Your task to perform on an android device: delete location history Image 0: 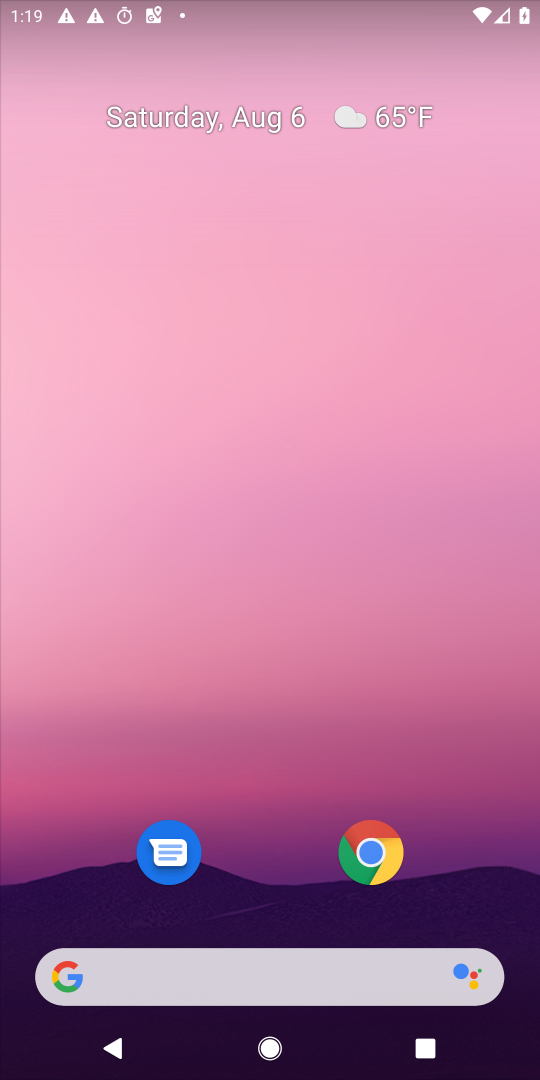
Step 0: drag from (343, 980) to (368, 442)
Your task to perform on an android device: delete location history Image 1: 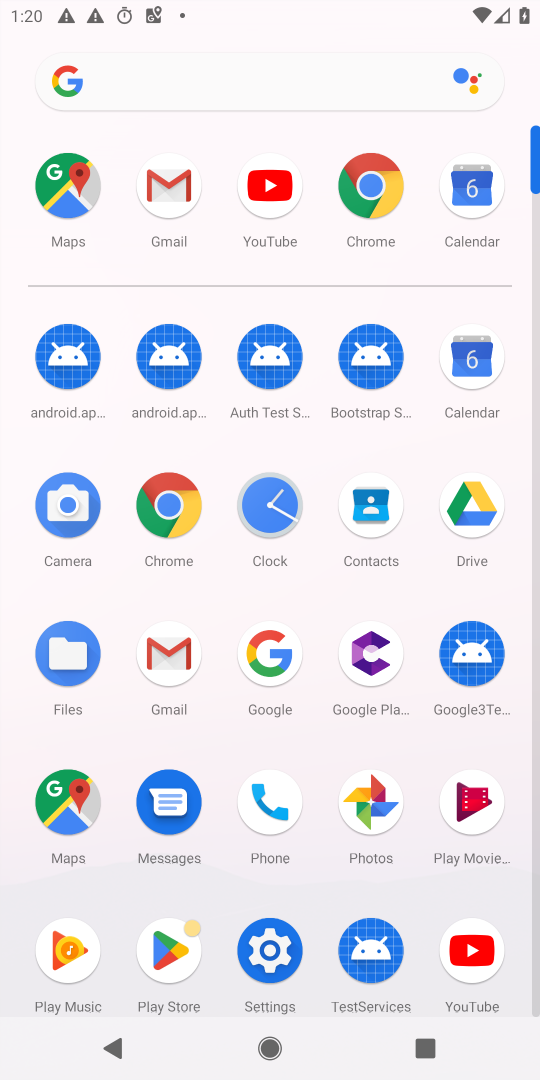
Step 1: click (282, 953)
Your task to perform on an android device: delete location history Image 2: 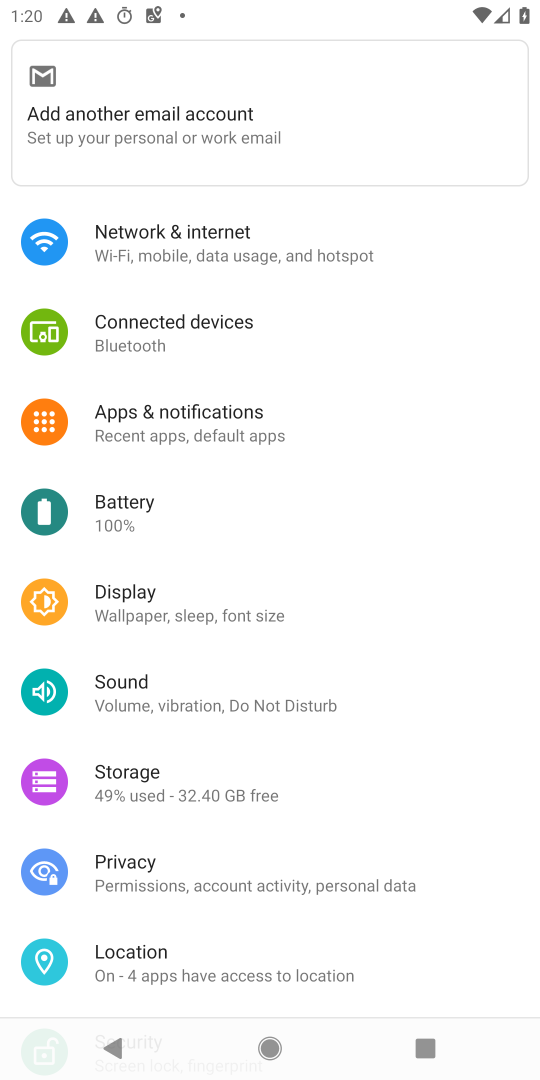
Step 2: click (155, 959)
Your task to perform on an android device: delete location history Image 3: 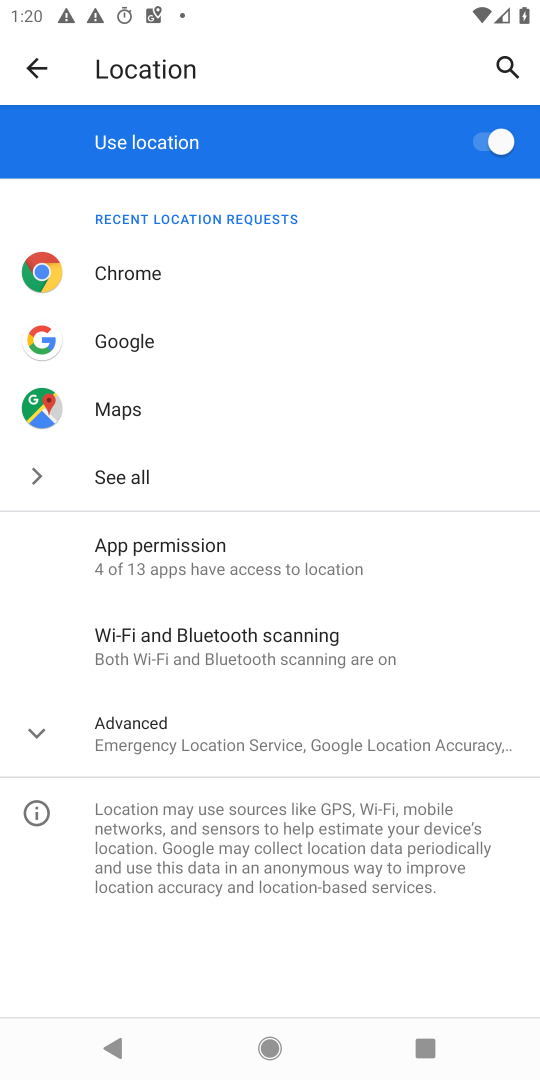
Step 3: click (44, 727)
Your task to perform on an android device: delete location history Image 4: 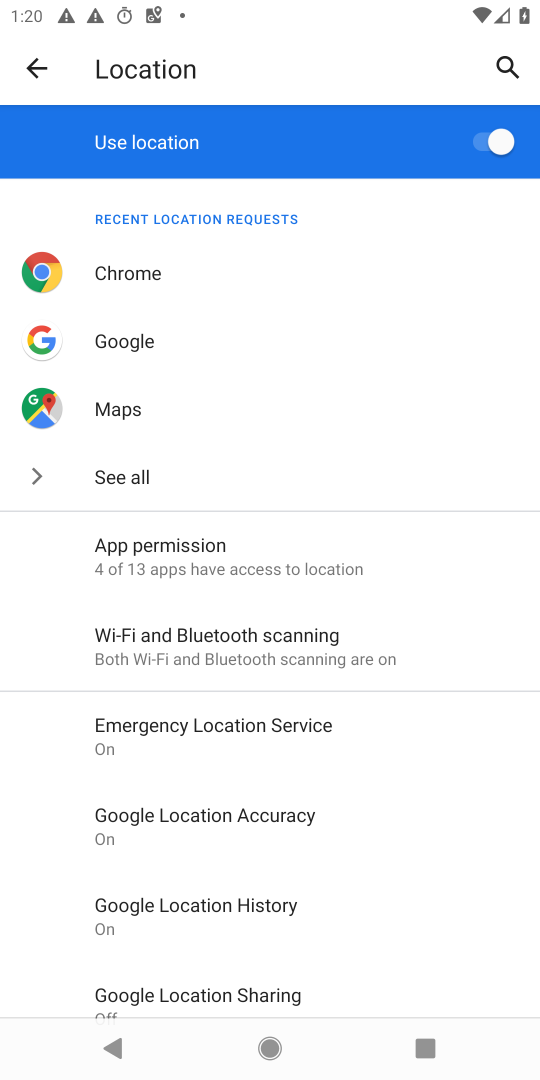
Step 4: click (224, 912)
Your task to perform on an android device: delete location history Image 5: 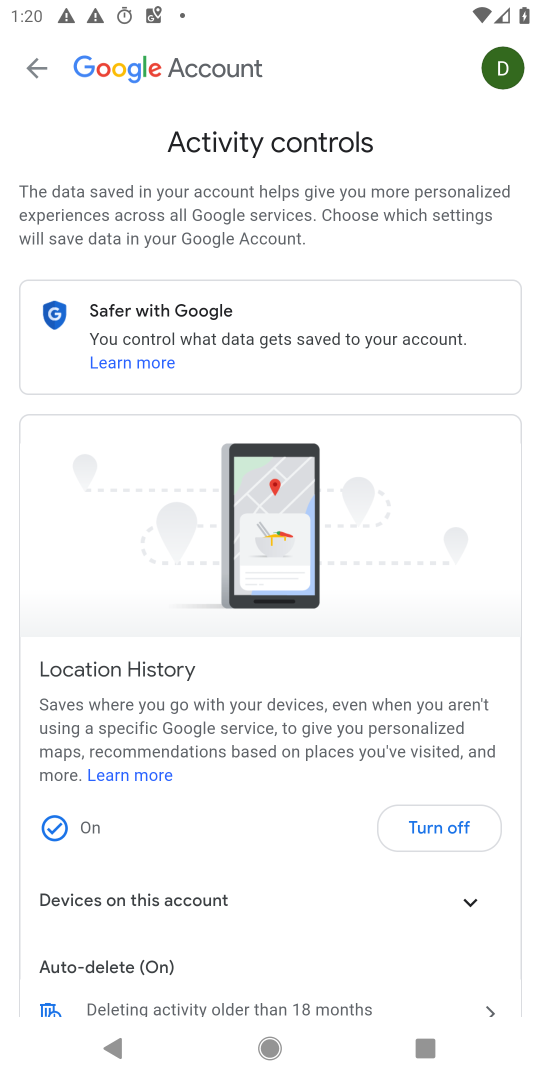
Step 5: task complete